Your task to perform on an android device: Open the phone app and click the voicemail tab. Image 0: 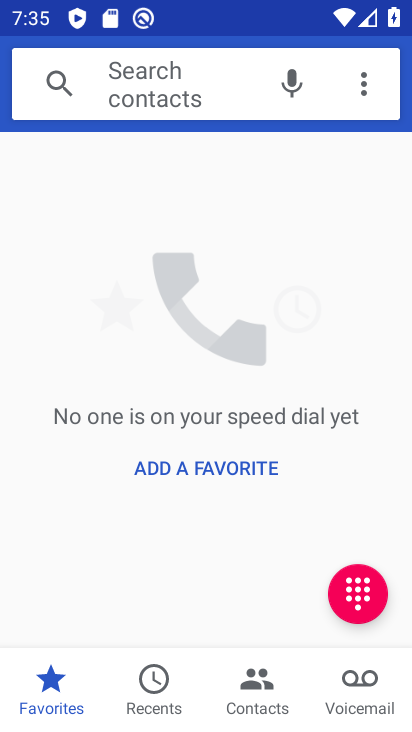
Step 0: press home button
Your task to perform on an android device: Open the phone app and click the voicemail tab. Image 1: 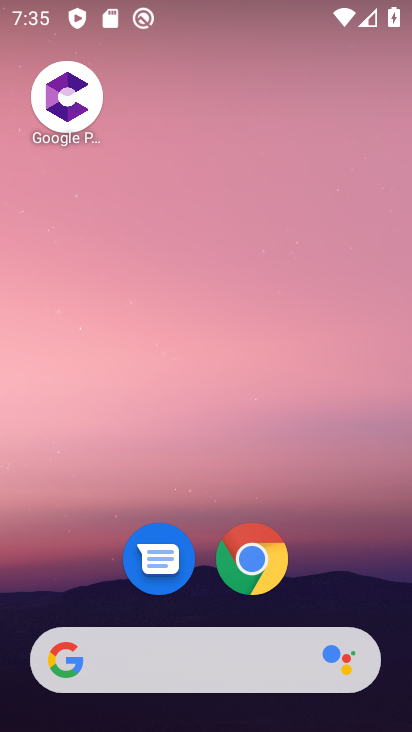
Step 1: drag from (158, 707) to (258, 292)
Your task to perform on an android device: Open the phone app and click the voicemail tab. Image 2: 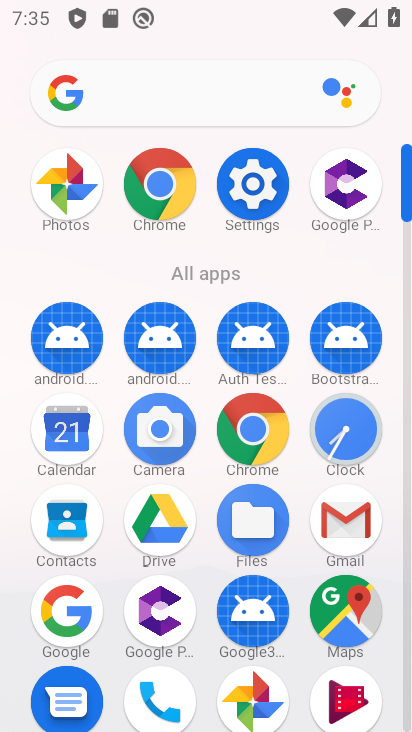
Step 2: drag from (246, 470) to (276, 300)
Your task to perform on an android device: Open the phone app and click the voicemail tab. Image 3: 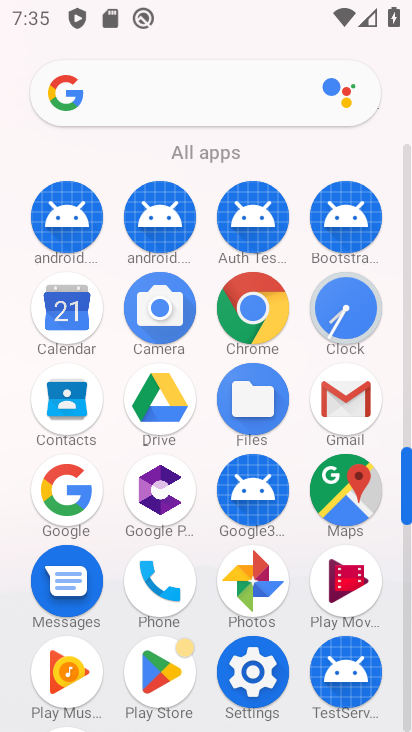
Step 3: drag from (176, 539) to (213, 328)
Your task to perform on an android device: Open the phone app and click the voicemail tab. Image 4: 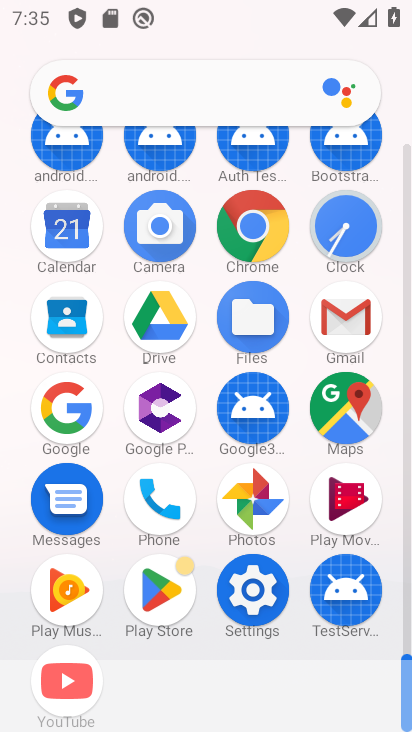
Step 4: click (166, 521)
Your task to perform on an android device: Open the phone app and click the voicemail tab. Image 5: 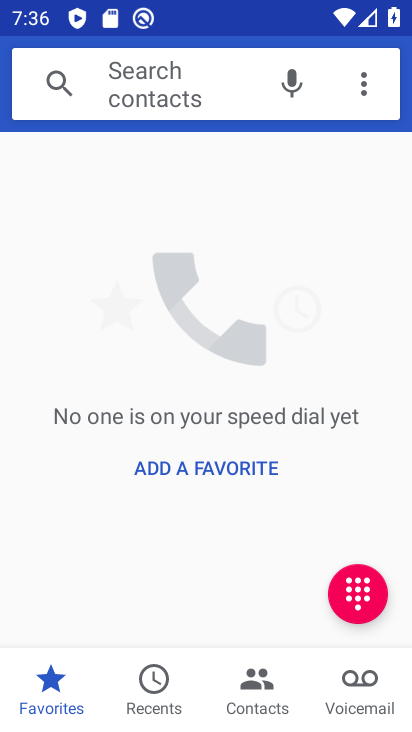
Step 5: click (342, 707)
Your task to perform on an android device: Open the phone app and click the voicemail tab. Image 6: 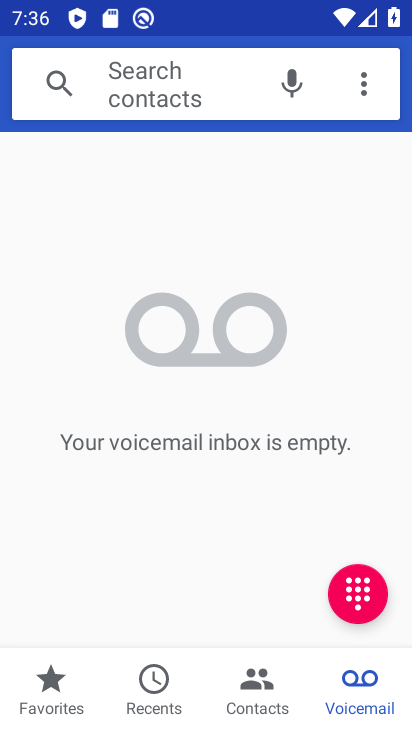
Step 6: task complete